Your task to perform on an android device: open chrome privacy settings Image 0: 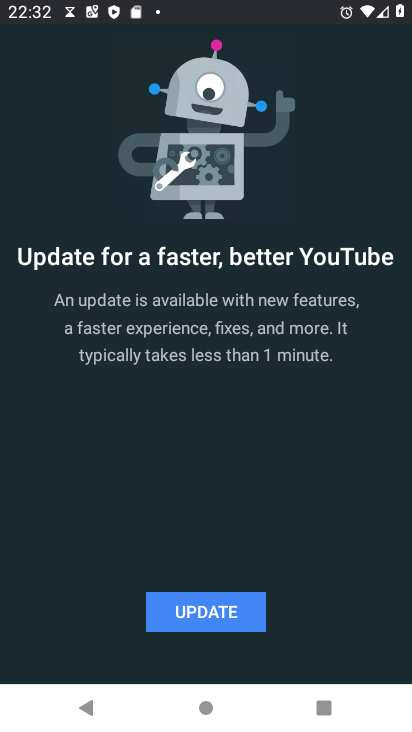
Step 0: press back button
Your task to perform on an android device: open chrome privacy settings Image 1: 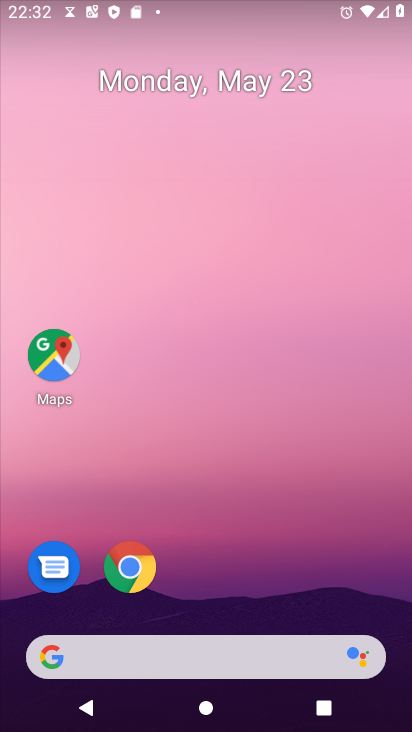
Step 1: click (146, 544)
Your task to perform on an android device: open chrome privacy settings Image 2: 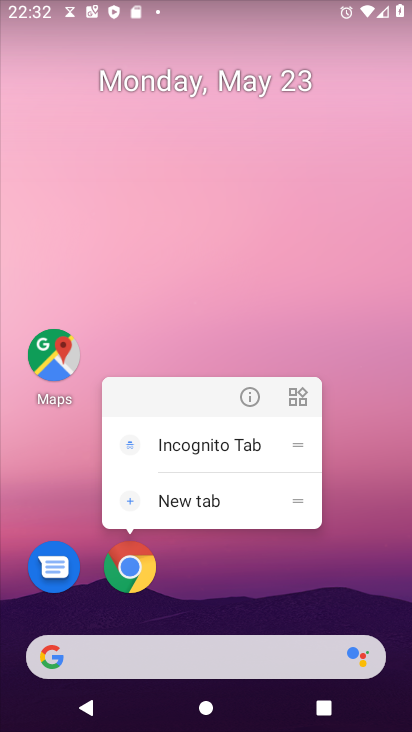
Step 2: click (141, 564)
Your task to perform on an android device: open chrome privacy settings Image 3: 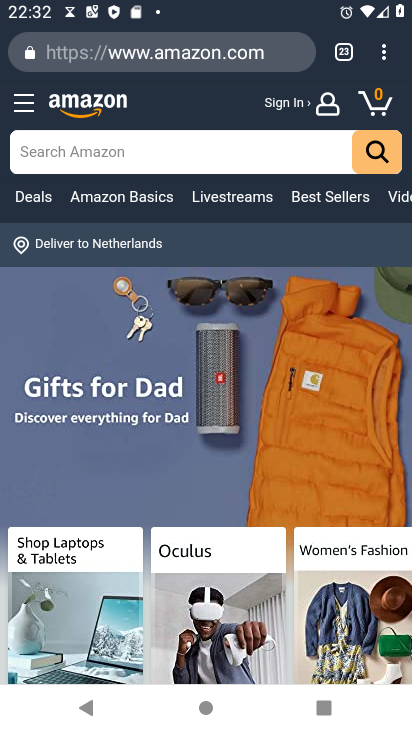
Step 3: click (378, 52)
Your task to perform on an android device: open chrome privacy settings Image 4: 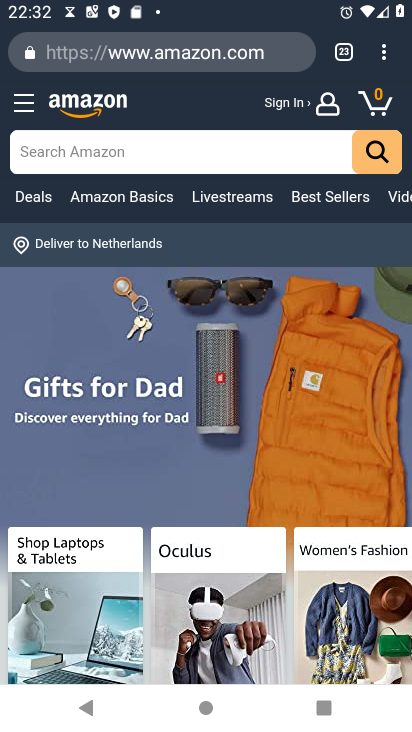
Step 4: click (372, 48)
Your task to perform on an android device: open chrome privacy settings Image 5: 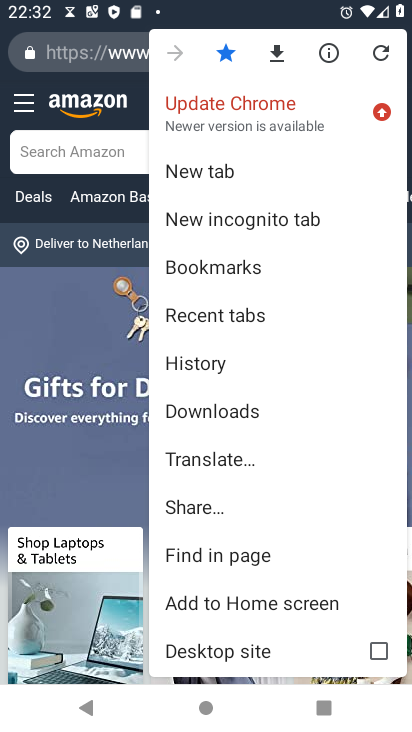
Step 5: drag from (216, 625) to (276, 413)
Your task to perform on an android device: open chrome privacy settings Image 6: 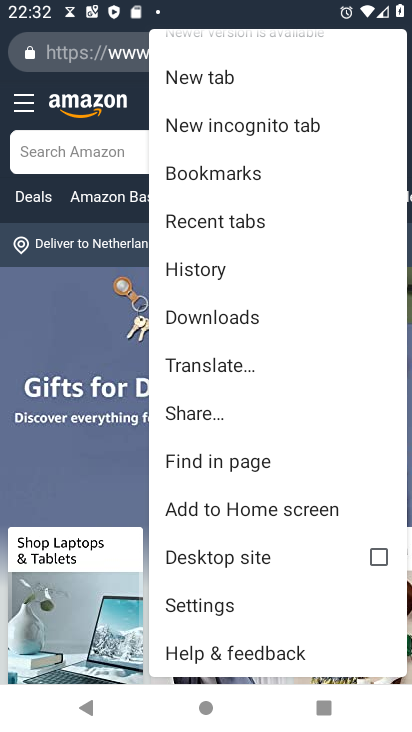
Step 6: click (201, 601)
Your task to perform on an android device: open chrome privacy settings Image 7: 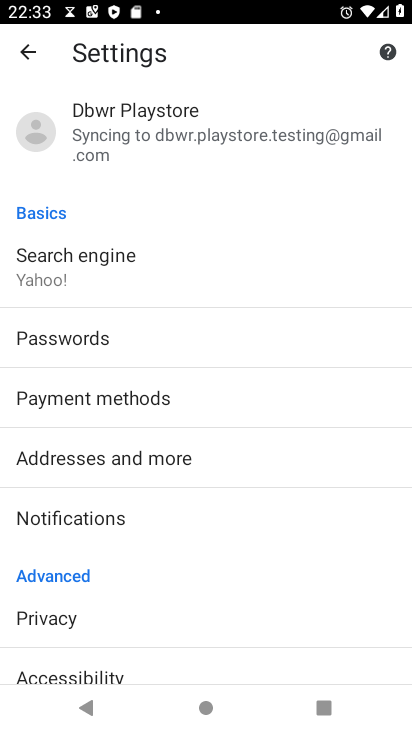
Step 7: task complete